Your task to perform on an android device: What is the news today? Image 0: 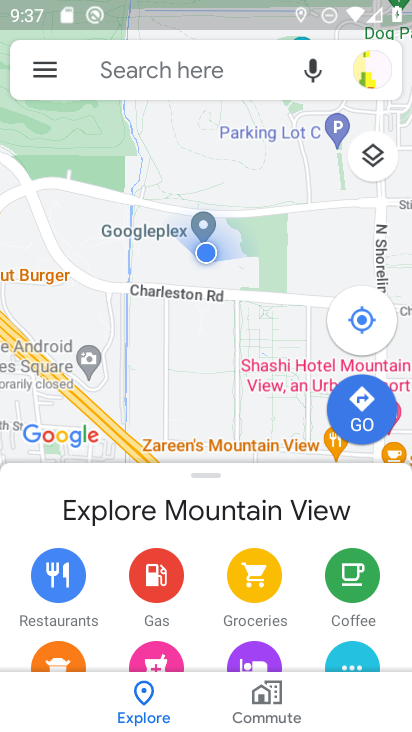
Step 0: press back button
Your task to perform on an android device: What is the news today? Image 1: 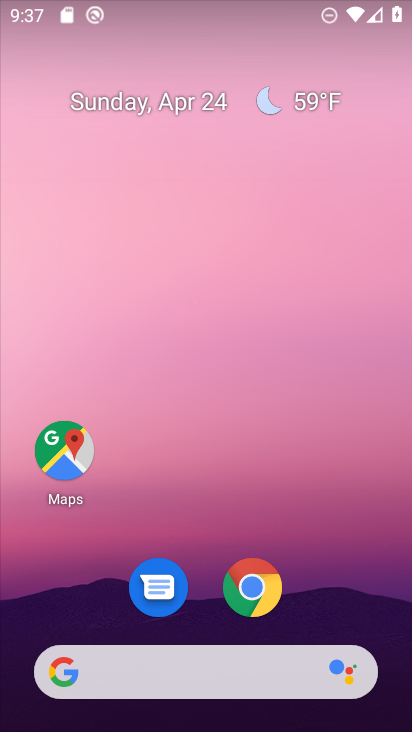
Step 1: drag from (225, 493) to (270, 15)
Your task to perform on an android device: What is the news today? Image 2: 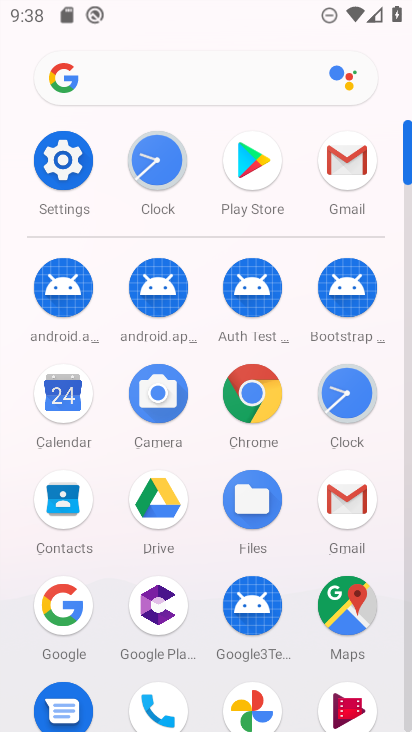
Step 2: click (62, 606)
Your task to perform on an android device: What is the news today? Image 3: 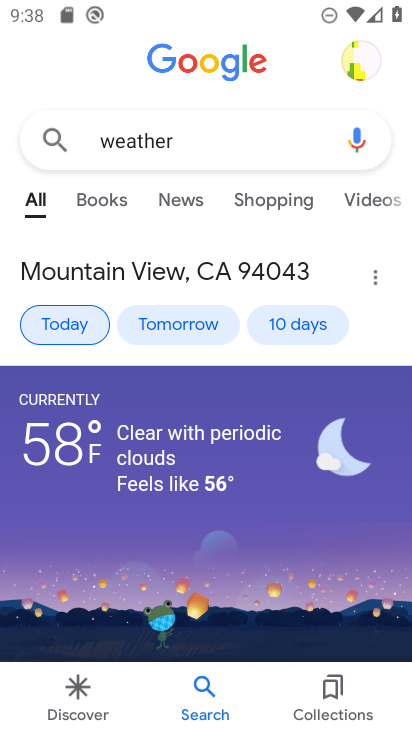
Step 3: click (247, 140)
Your task to perform on an android device: What is the news today? Image 4: 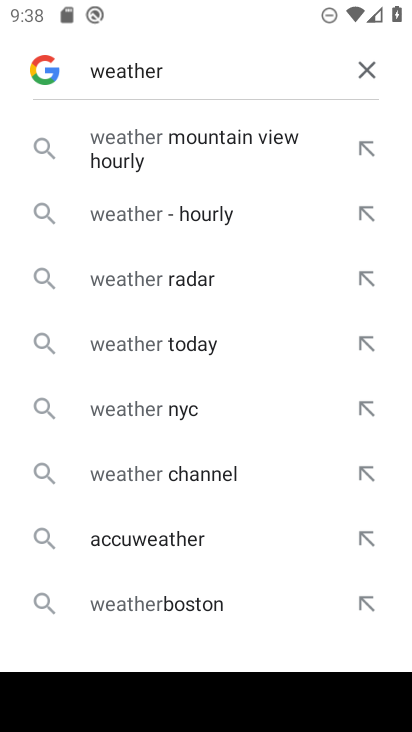
Step 4: click (364, 70)
Your task to perform on an android device: What is the news today? Image 5: 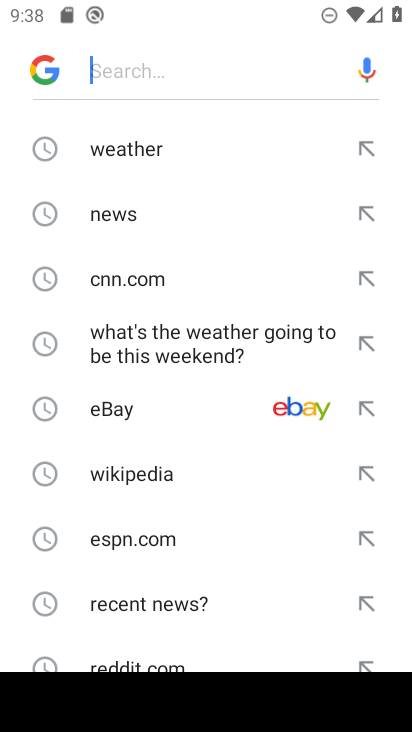
Step 5: click (123, 210)
Your task to perform on an android device: What is the news today? Image 6: 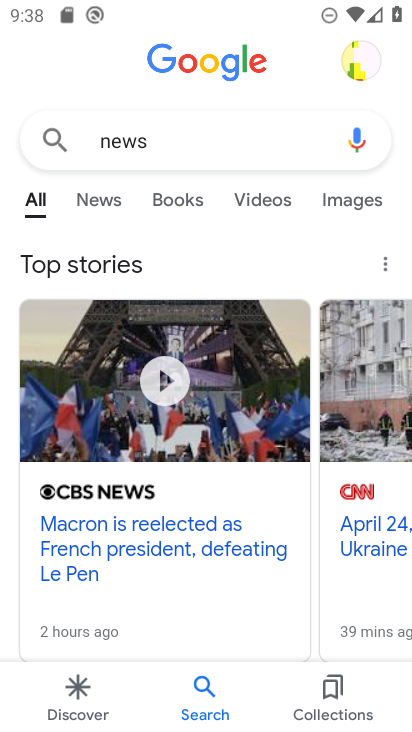
Step 6: task complete